Your task to perform on an android device: Open battery settings Image 0: 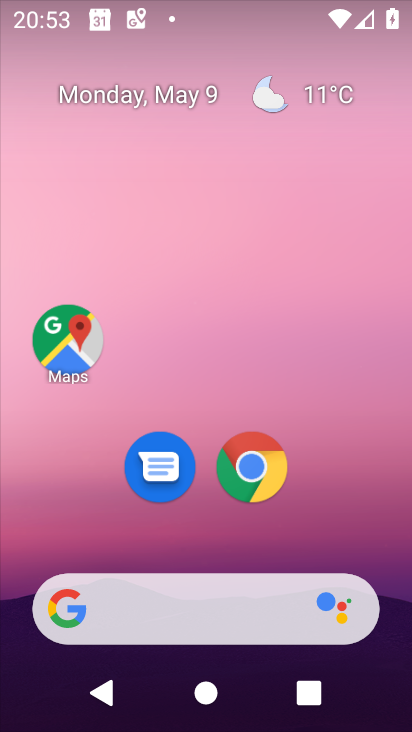
Step 0: drag from (329, 393) to (313, 168)
Your task to perform on an android device: Open battery settings Image 1: 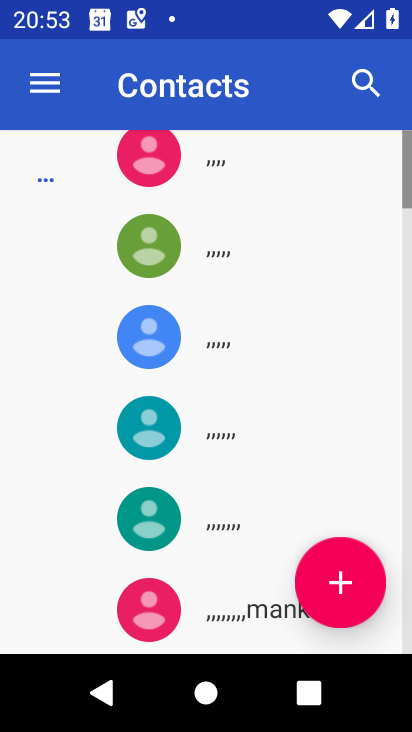
Step 1: press home button
Your task to perform on an android device: Open battery settings Image 2: 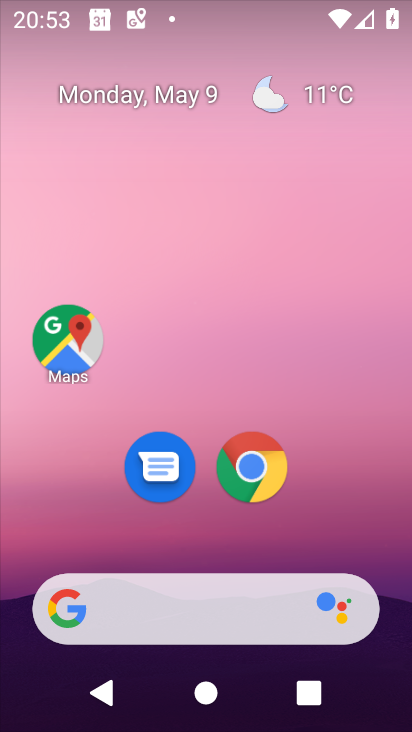
Step 2: drag from (380, 521) to (337, 189)
Your task to perform on an android device: Open battery settings Image 3: 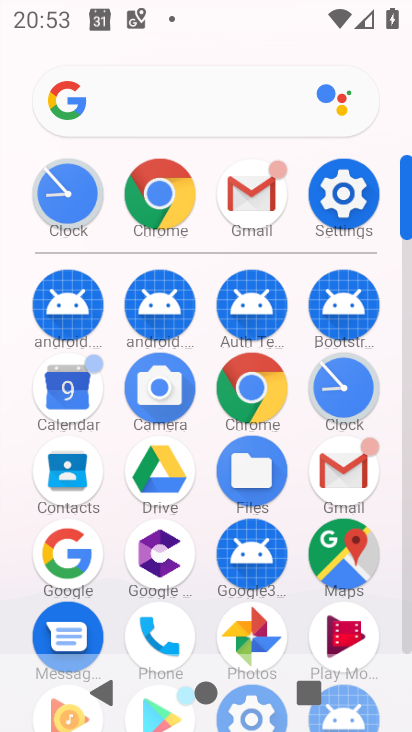
Step 3: click (321, 173)
Your task to perform on an android device: Open battery settings Image 4: 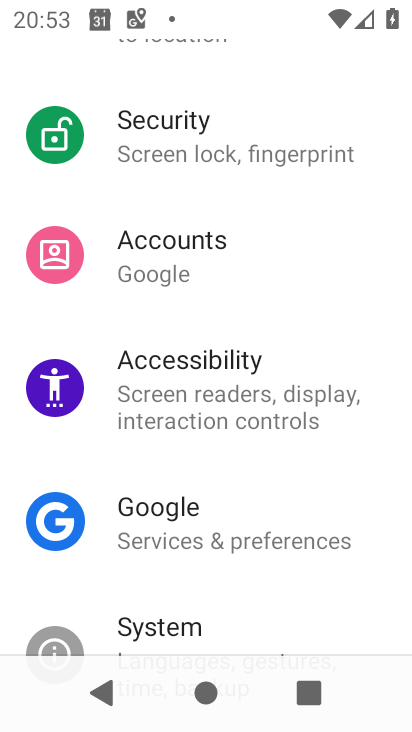
Step 4: drag from (220, 185) to (222, 566)
Your task to perform on an android device: Open battery settings Image 5: 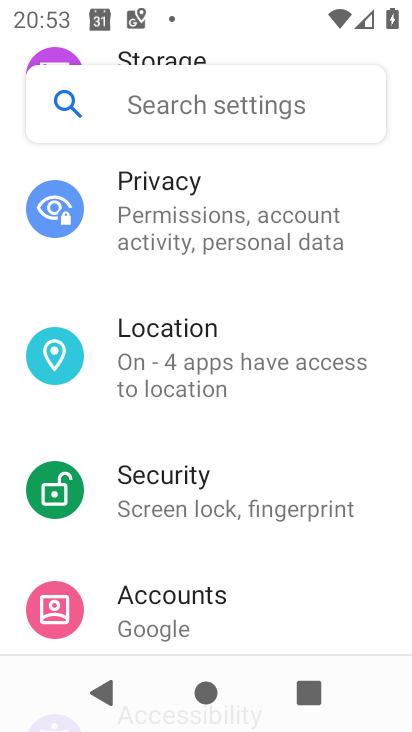
Step 5: drag from (185, 199) to (202, 598)
Your task to perform on an android device: Open battery settings Image 6: 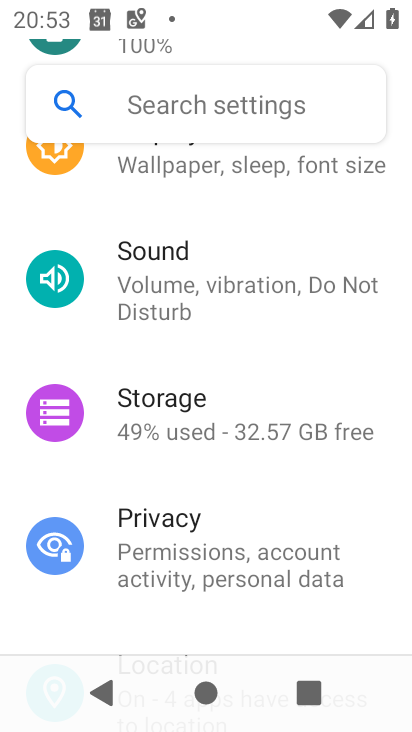
Step 6: drag from (194, 239) to (241, 376)
Your task to perform on an android device: Open battery settings Image 7: 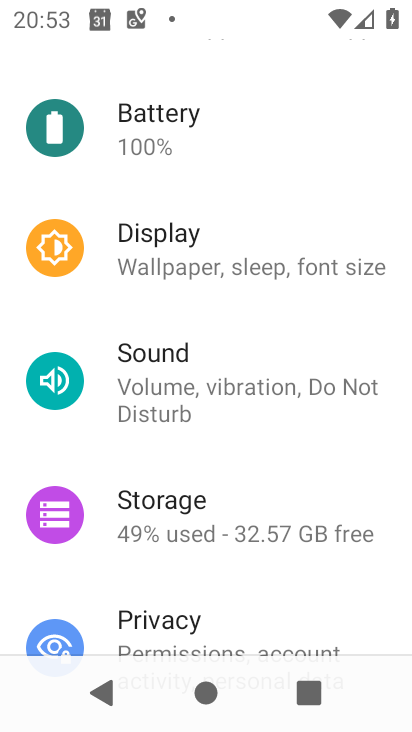
Step 7: click (168, 115)
Your task to perform on an android device: Open battery settings Image 8: 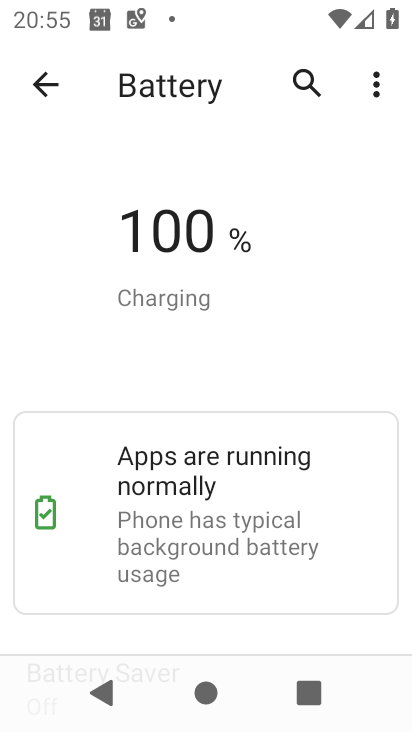
Step 8: task complete